Your task to perform on an android device: What's the weather going to be tomorrow? Image 0: 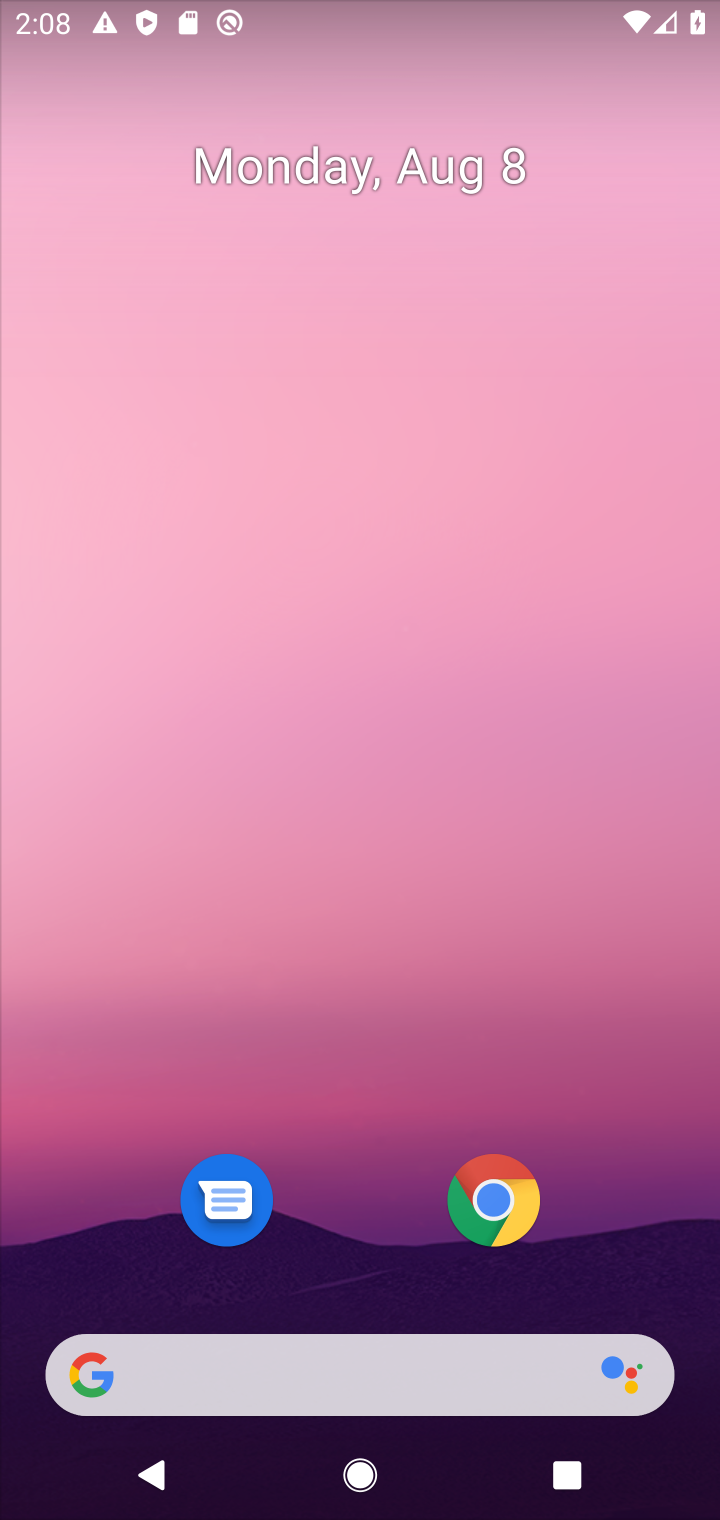
Step 0: click (319, 1375)
Your task to perform on an android device: What's the weather going to be tomorrow? Image 1: 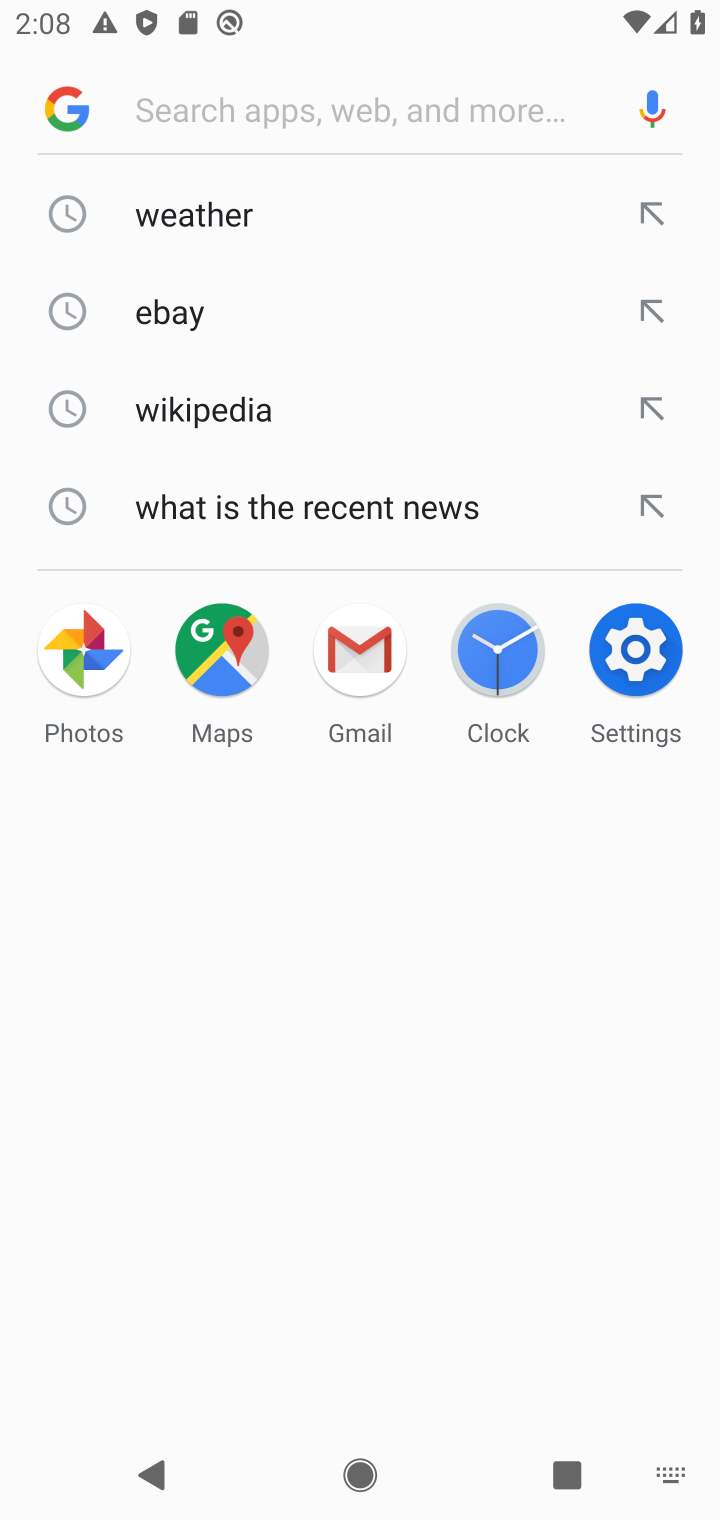
Step 1: click (241, 218)
Your task to perform on an android device: What's the weather going to be tomorrow? Image 2: 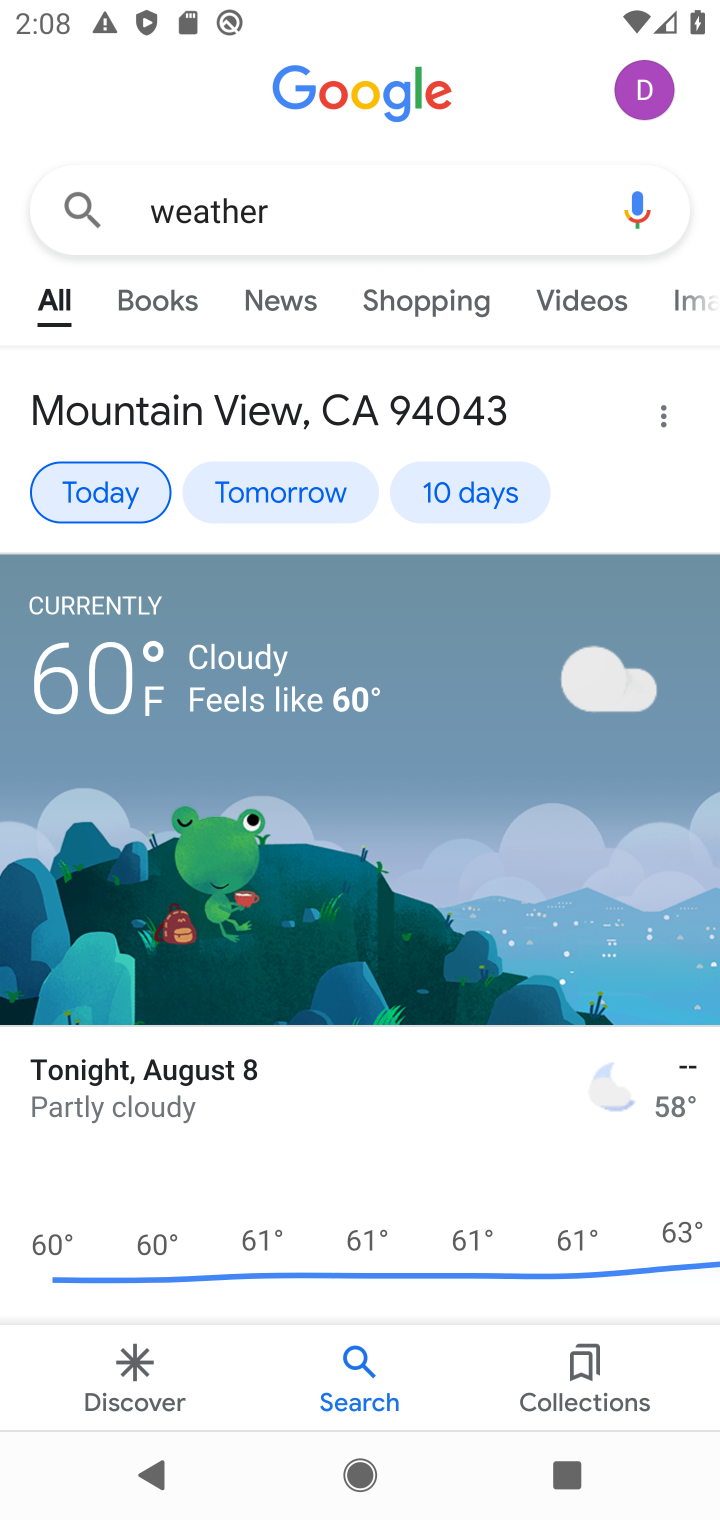
Step 2: click (295, 486)
Your task to perform on an android device: What's the weather going to be tomorrow? Image 3: 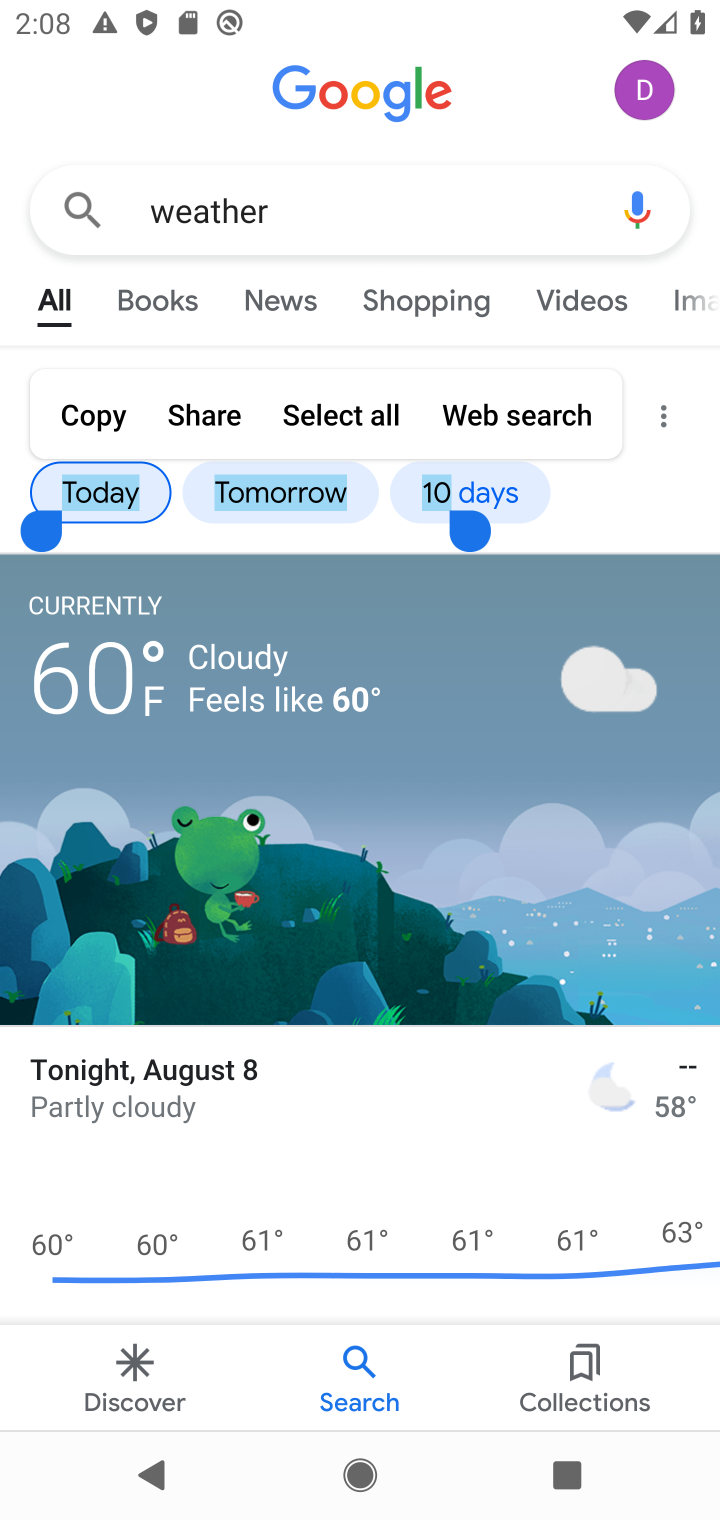
Step 3: click (625, 470)
Your task to perform on an android device: What's the weather going to be tomorrow? Image 4: 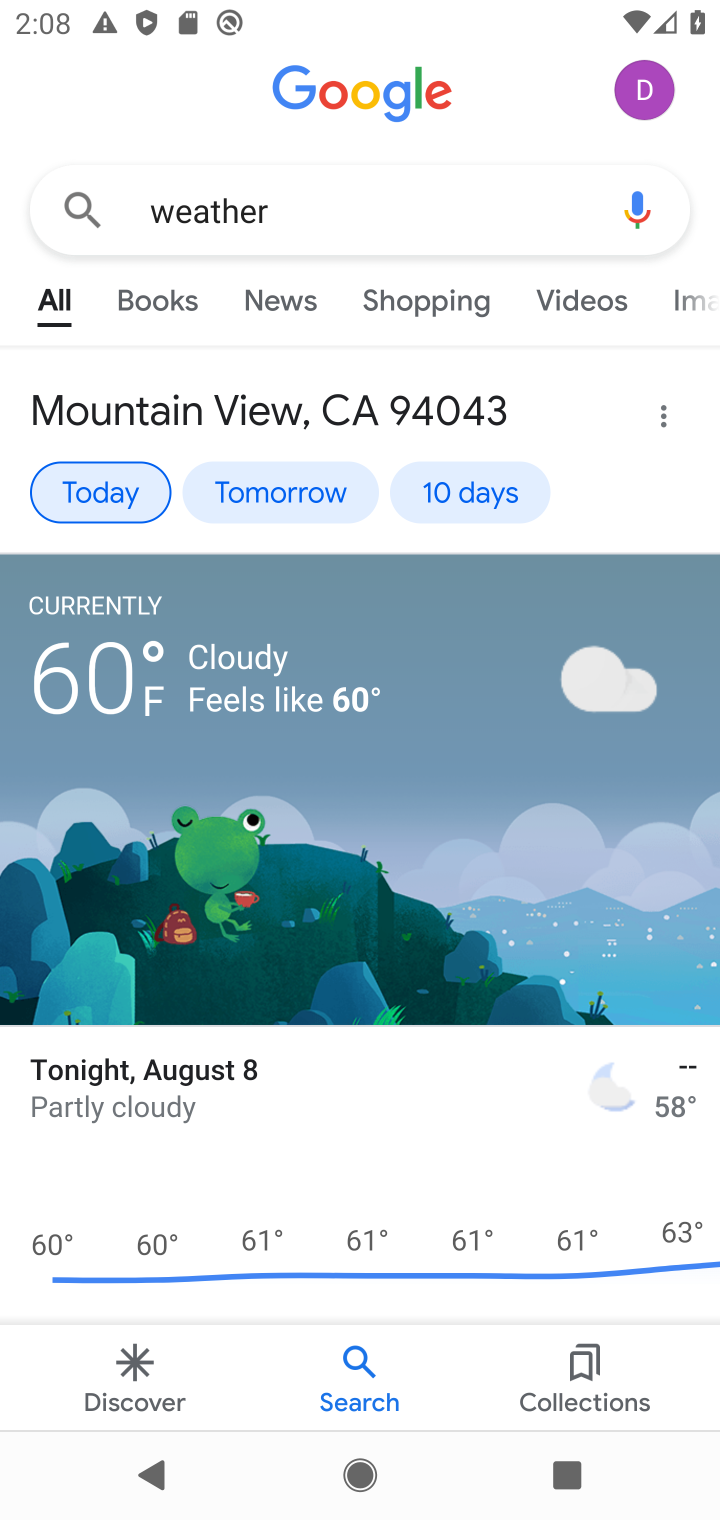
Step 4: click (281, 504)
Your task to perform on an android device: What's the weather going to be tomorrow? Image 5: 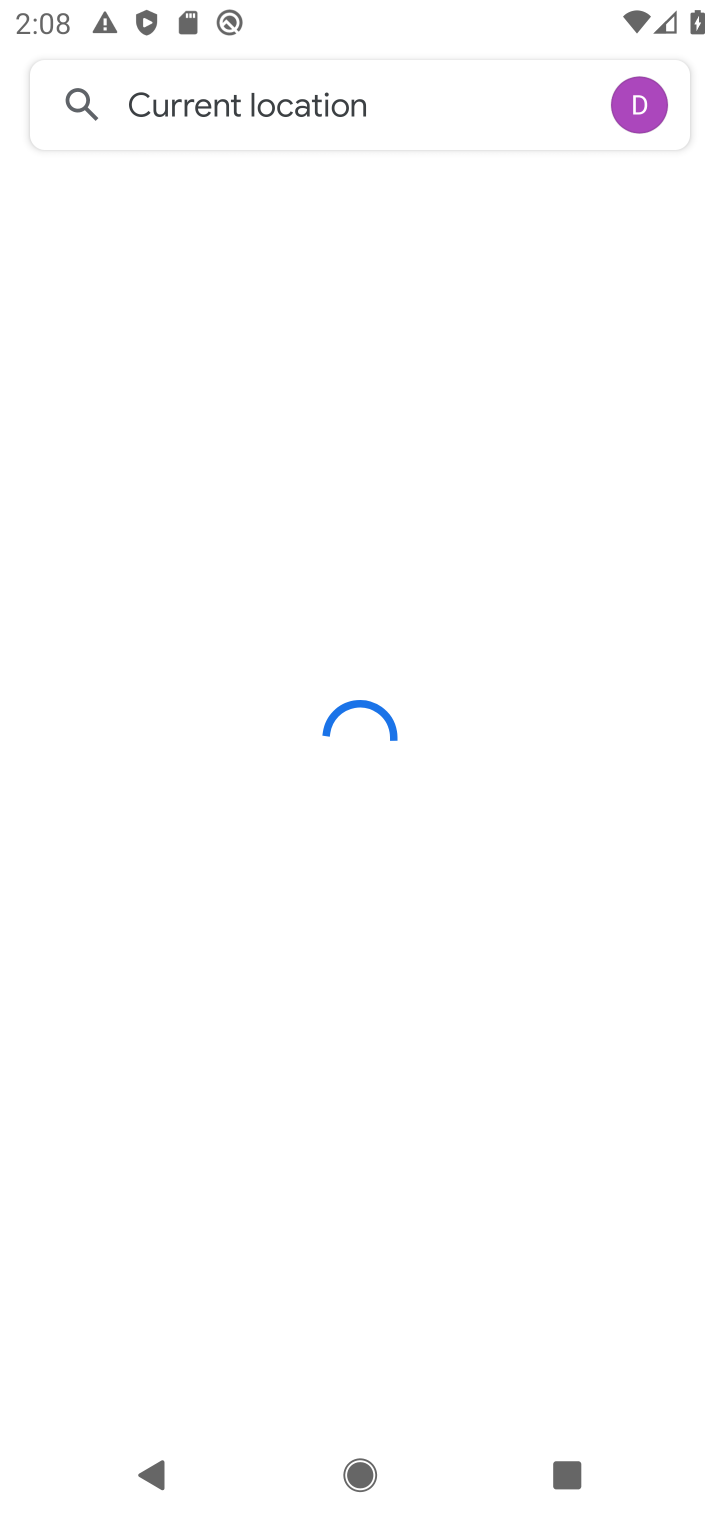
Step 5: task complete